Your task to perform on an android device: toggle notification dots Image 0: 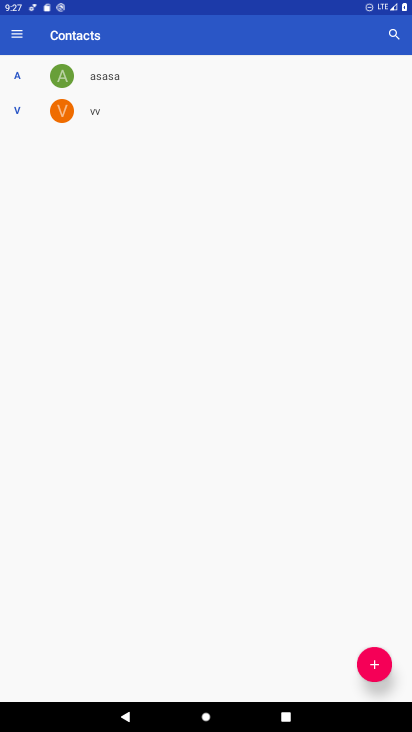
Step 0: drag from (251, 2) to (274, 531)
Your task to perform on an android device: toggle notification dots Image 1: 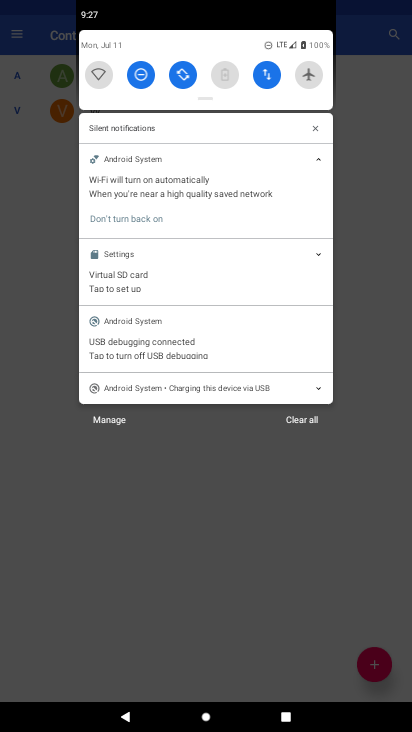
Step 1: drag from (198, 46) to (218, 485)
Your task to perform on an android device: toggle notification dots Image 2: 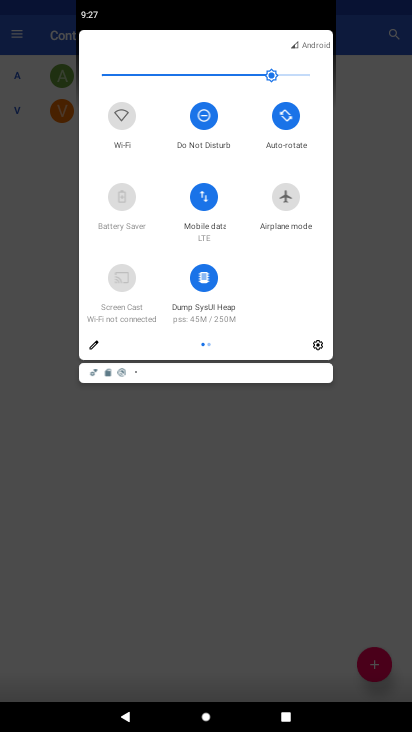
Step 2: click (317, 352)
Your task to perform on an android device: toggle notification dots Image 3: 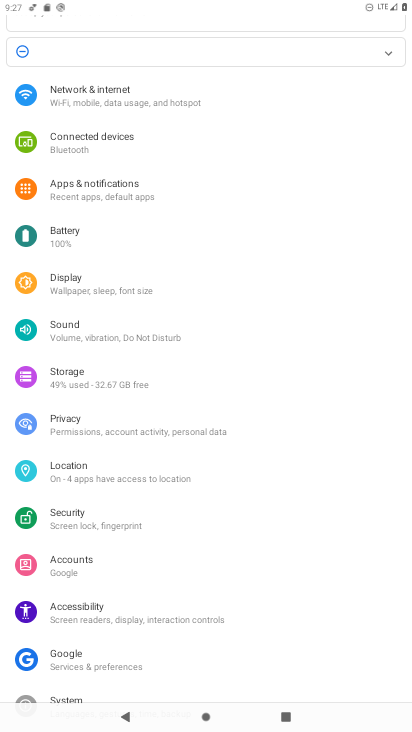
Step 3: click (144, 185)
Your task to perform on an android device: toggle notification dots Image 4: 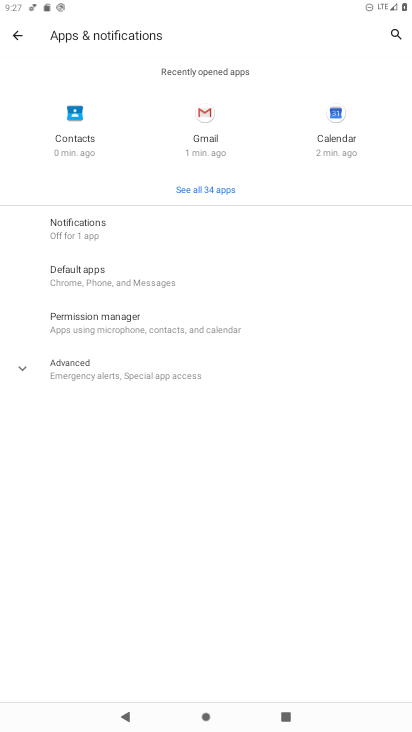
Step 4: click (197, 362)
Your task to perform on an android device: toggle notification dots Image 5: 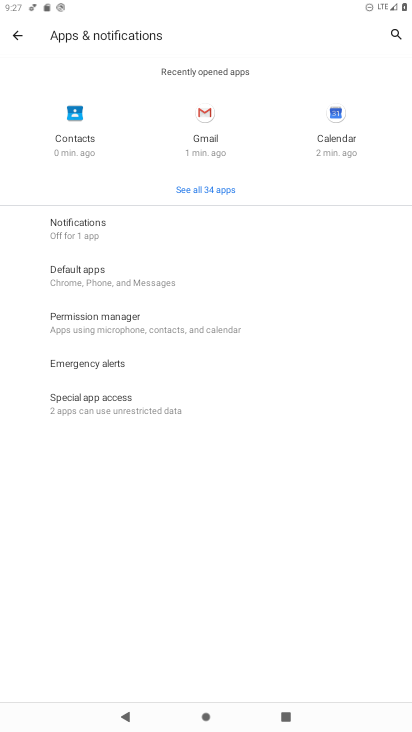
Step 5: click (154, 225)
Your task to perform on an android device: toggle notification dots Image 6: 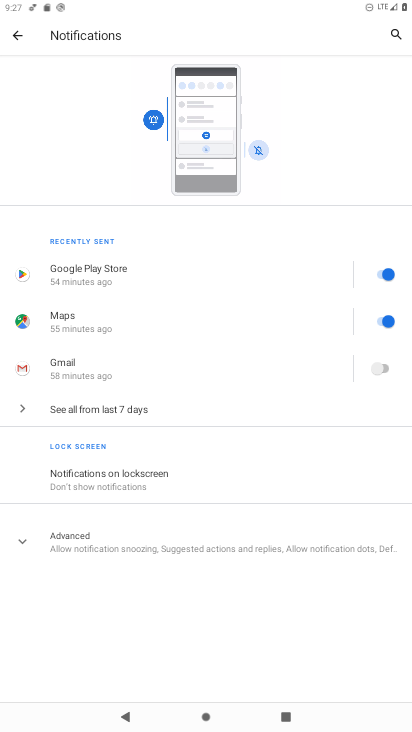
Step 6: click (176, 546)
Your task to perform on an android device: toggle notification dots Image 7: 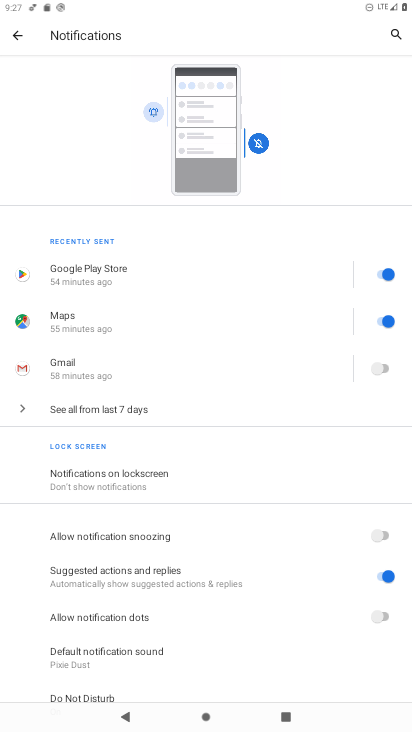
Step 7: click (384, 614)
Your task to perform on an android device: toggle notification dots Image 8: 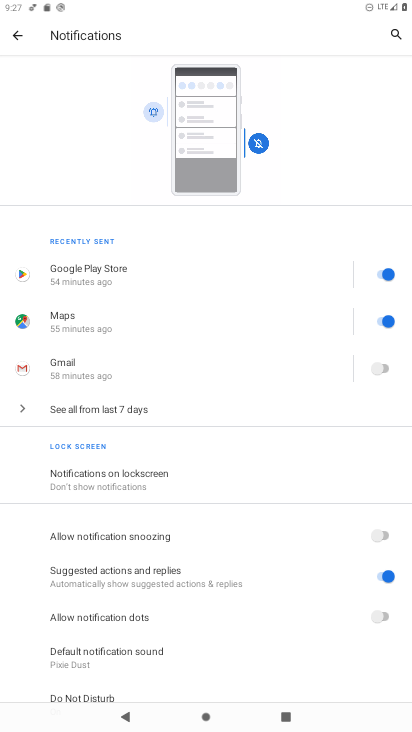
Step 8: click (384, 614)
Your task to perform on an android device: toggle notification dots Image 9: 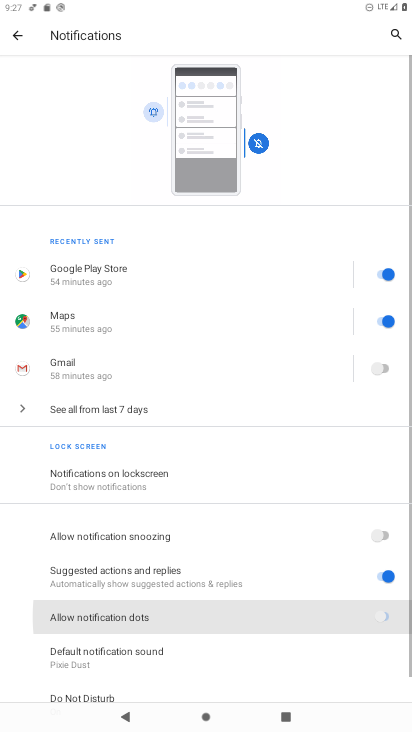
Step 9: click (384, 614)
Your task to perform on an android device: toggle notification dots Image 10: 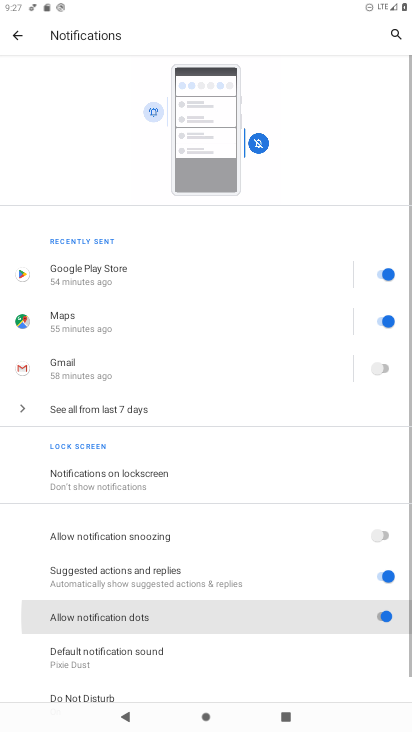
Step 10: click (384, 614)
Your task to perform on an android device: toggle notification dots Image 11: 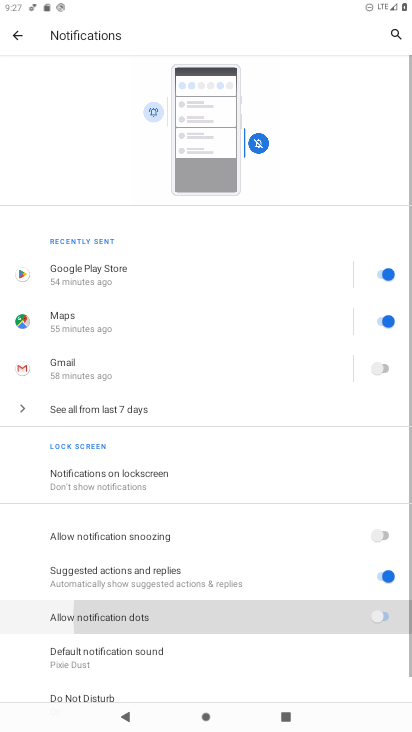
Step 11: click (384, 614)
Your task to perform on an android device: toggle notification dots Image 12: 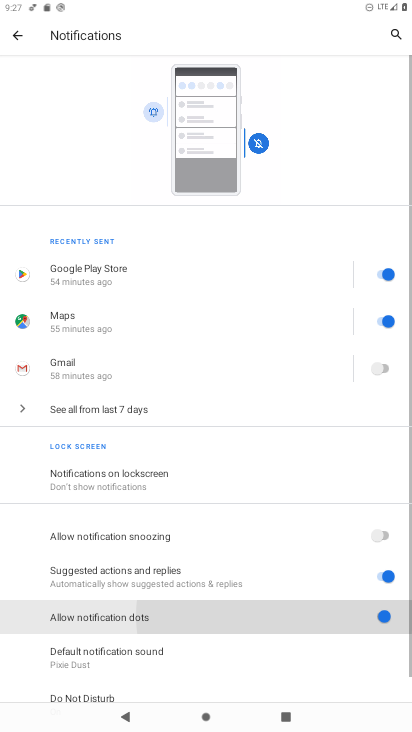
Step 12: click (384, 614)
Your task to perform on an android device: toggle notification dots Image 13: 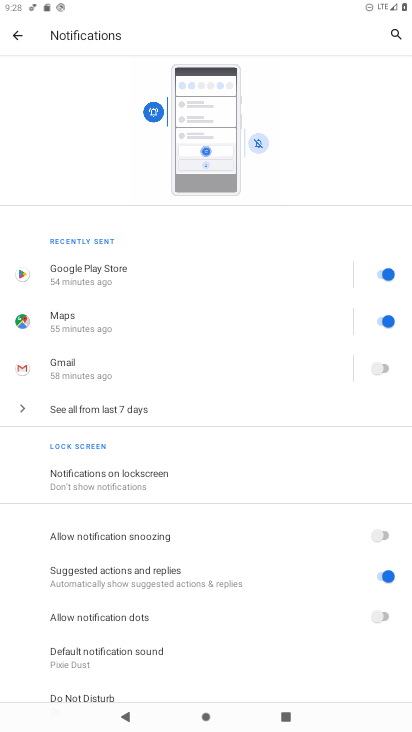
Step 13: task complete